Your task to perform on an android device: change keyboard looks Image 0: 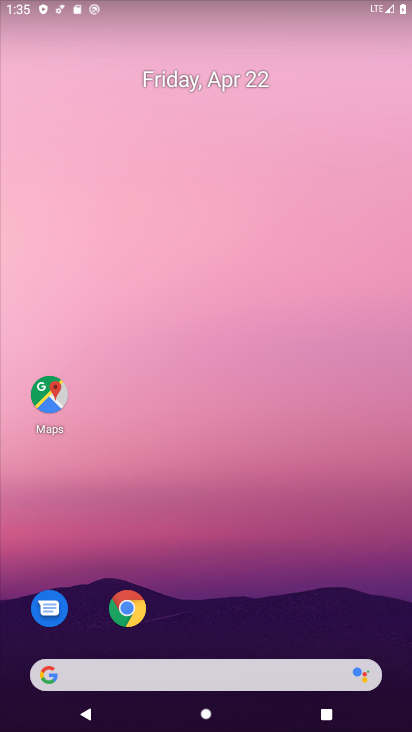
Step 0: drag from (241, 703) to (324, 158)
Your task to perform on an android device: change keyboard looks Image 1: 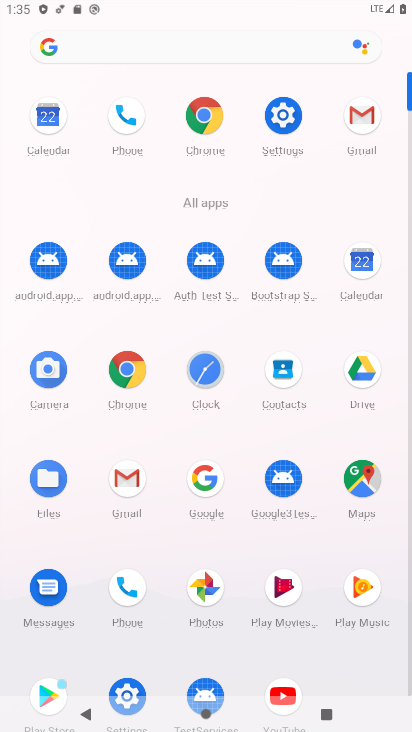
Step 1: click (291, 123)
Your task to perform on an android device: change keyboard looks Image 2: 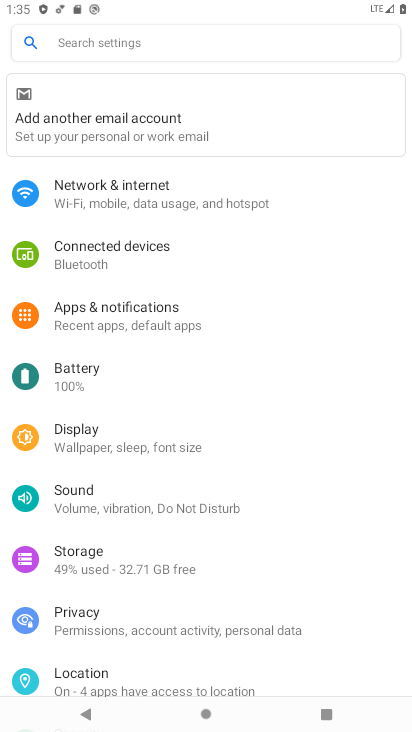
Step 2: click (154, 47)
Your task to perform on an android device: change keyboard looks Image 3: 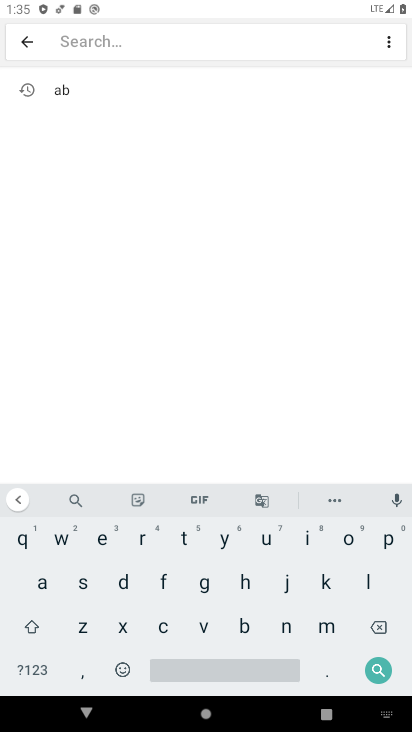
Step 3: click (320, 576)
Your task to perform on an android device: change keyboard looks Image 4: 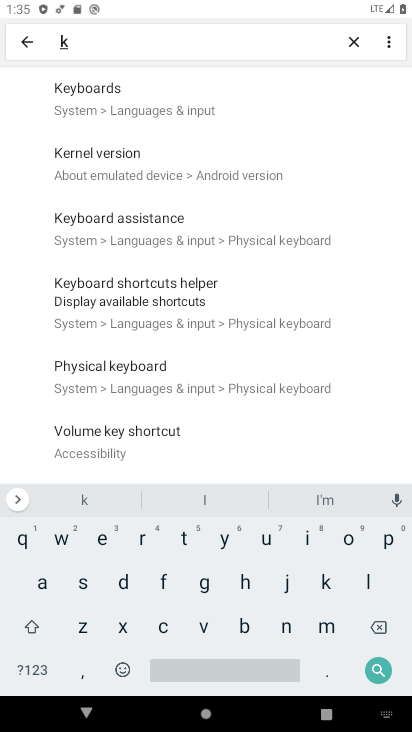
Step 4: click (105, 533)
Your task to perform on an android device: change keyboard looks Image 5: 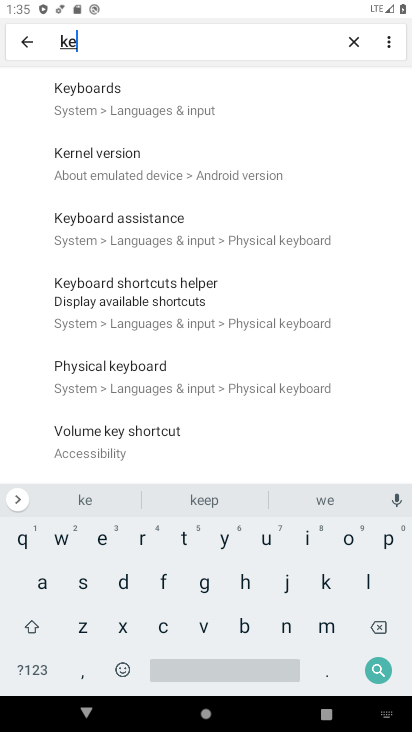
Step 5: click (224, 538)
Your task to perform on an android device: change keyboard looks Image 6: 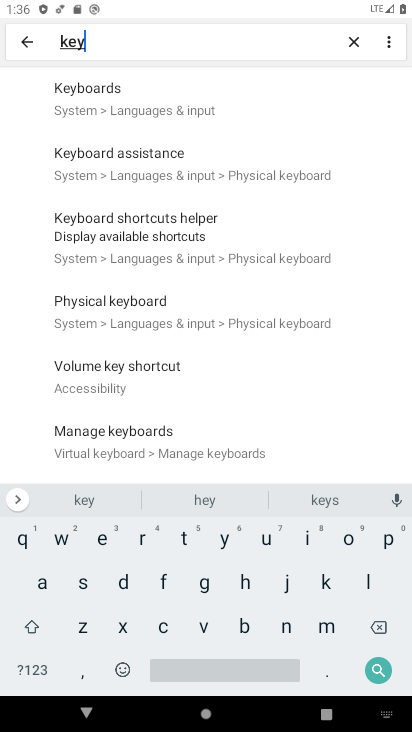
Step 6: click (190, 116)
Your task to perform on an android device: change keyboard looks Image 7: 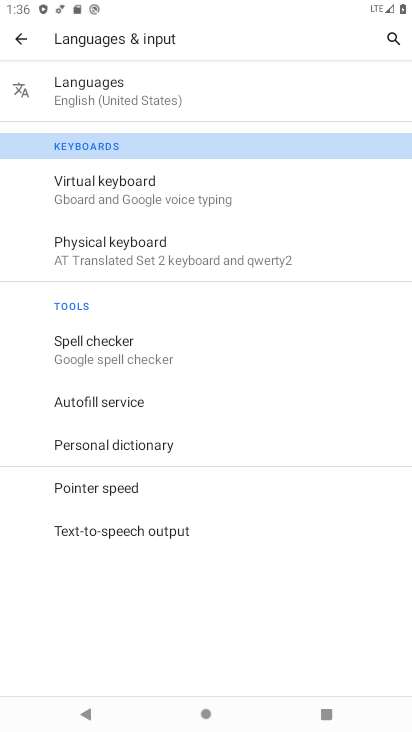
Step 7: click (106, 178)
Your task to perform on an android device: change keyboard looks Image 8: 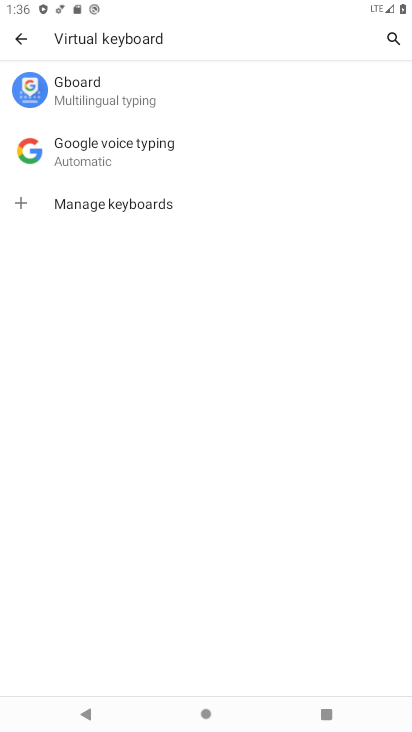
Step 8: click (112, 97)
Your task to perform on an android device: change keyboard looks Image 9: 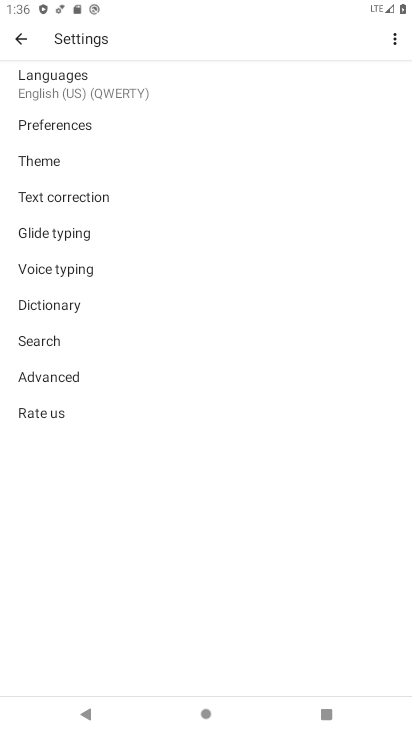
Step 9: click (92, 164)
Your task to perform on an android device: change keyboard looks Image 10: 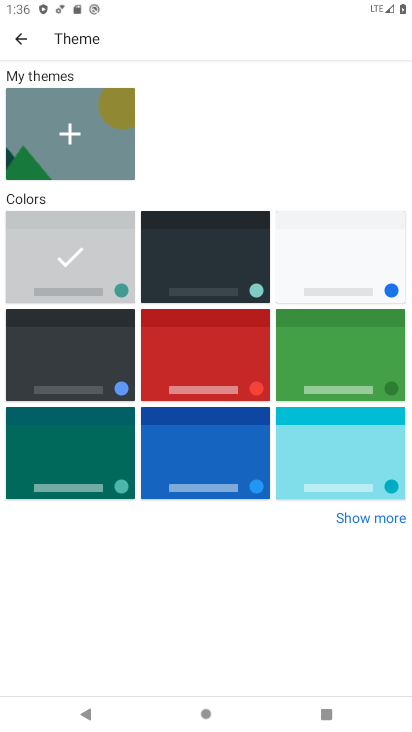
Step 10: click (213, 431)
Your task to perform on an android device: change keyboard looks Image 11: 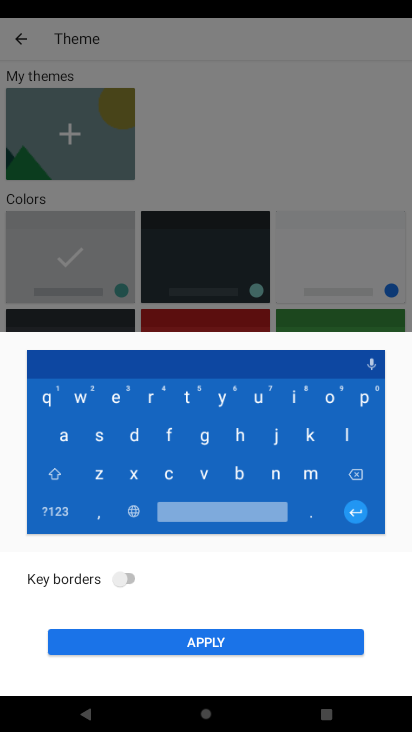
Step 11: click (128, 574)
Your task to perform on an android device: change keyboard looks Image 12: 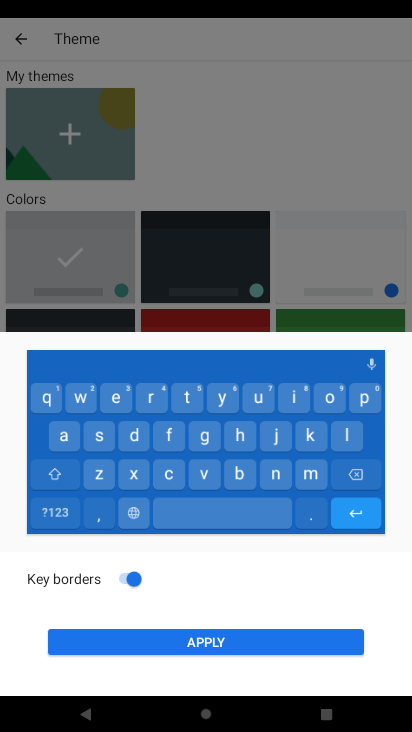
Step 12: click (204, 641)
Your task to perform on an android device: change keyboard looks Image 13: 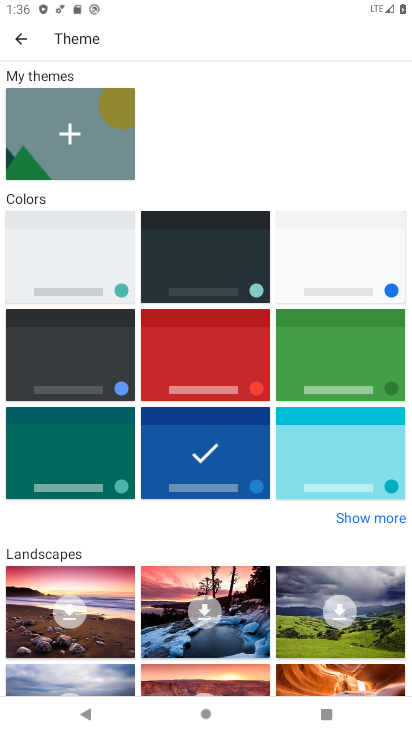
Step 13: task complete